Your task to perform on an android device: toggle improve location accuracy Image 0: 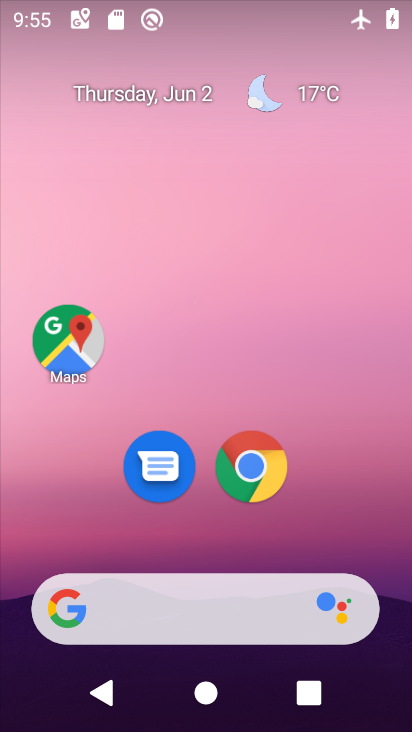
Step 0: click (241, 474)
Your task to perform on an android device: toggle improve location accuracy Image 1: 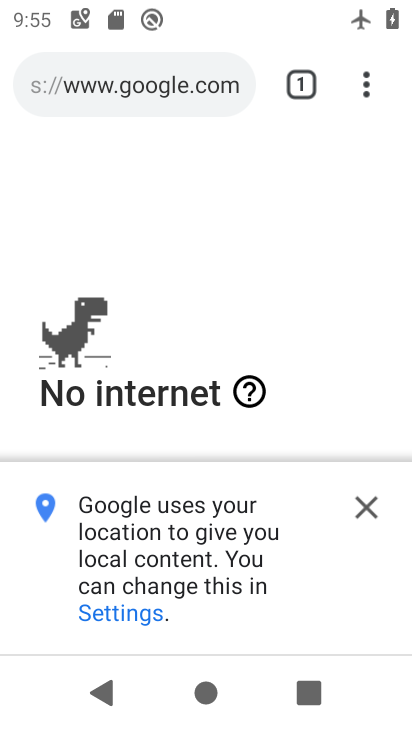
Step 1: click (374, 84)
Your task to perform on an android device: toggle improve location accuracy Image 2: 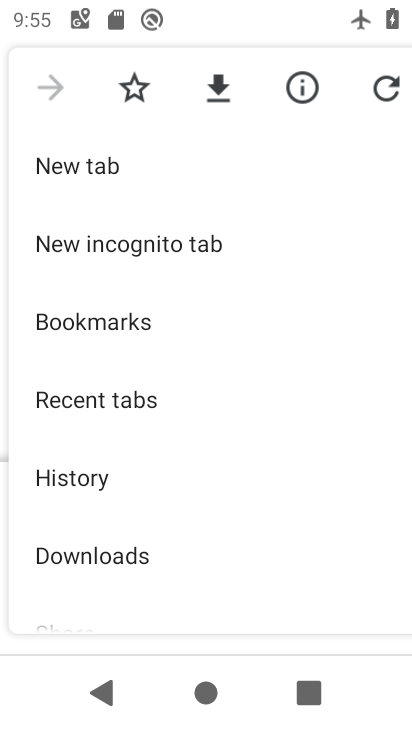
Step 2: drag from (139, 486) to (196, 226)
Your task to perform on an android device: toggle improve location accuracy Image 3: 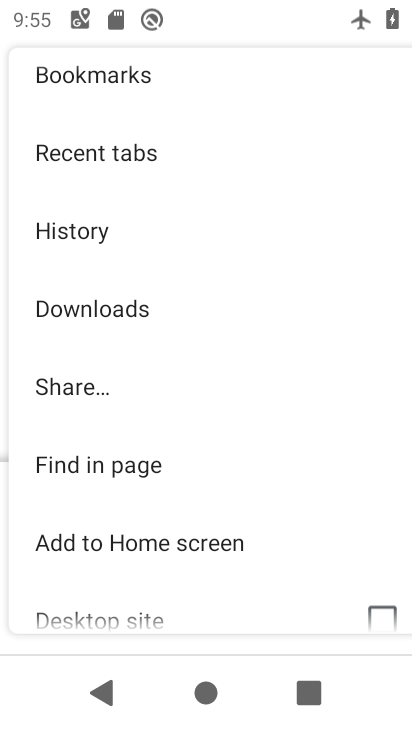
Step 3: click (204, 234)
Your task to perform on an android device: toggle improve location accuracy Image 4: 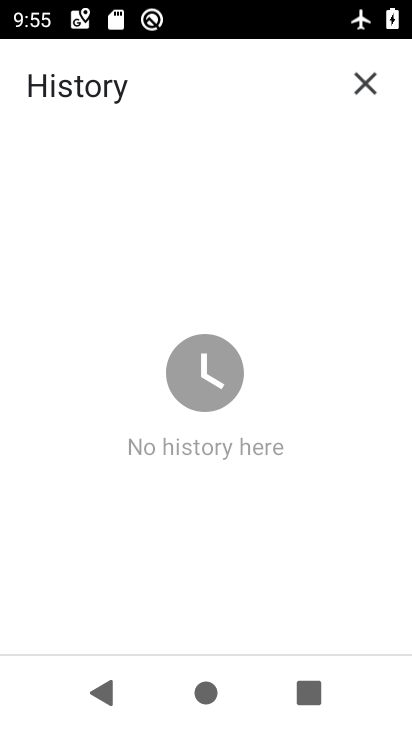
Step 4: press home button
Your task to perform on an android device: toggle improve location accuracy Image 5: 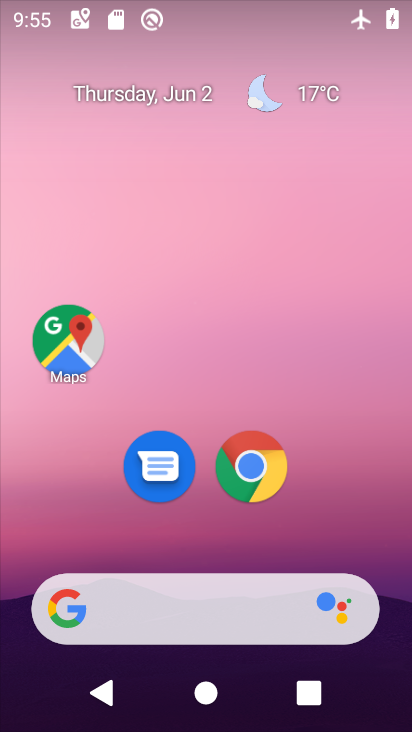
Step 5: drag from (322, 517) to (356, 170)
Your task to perform on an android device: toggle improve location accuracy Image 6: 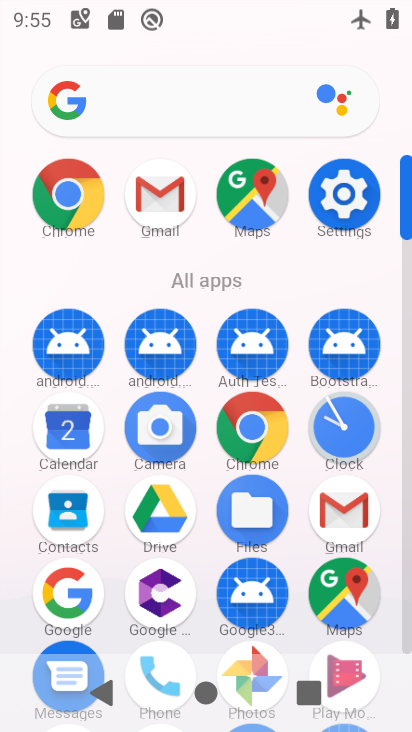
Step 6: click (330, 183)
Your task to perform on an android device: toggle improve location accuracy Image 7: 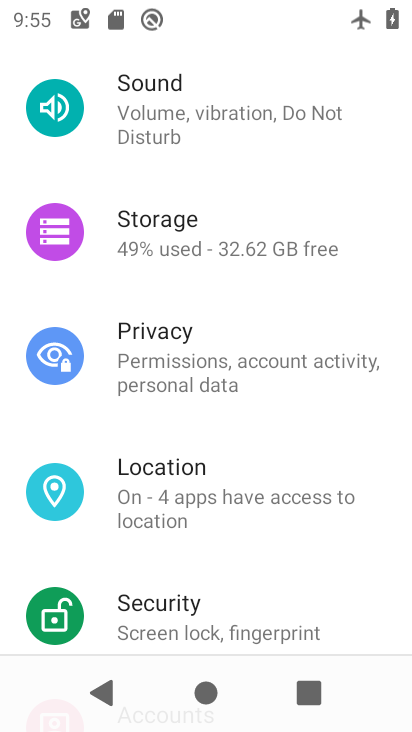
Step 7: drag from (237, 572) to (247, 253)
Your task to perform on an android device: toggle improve location accuracy Image 8: 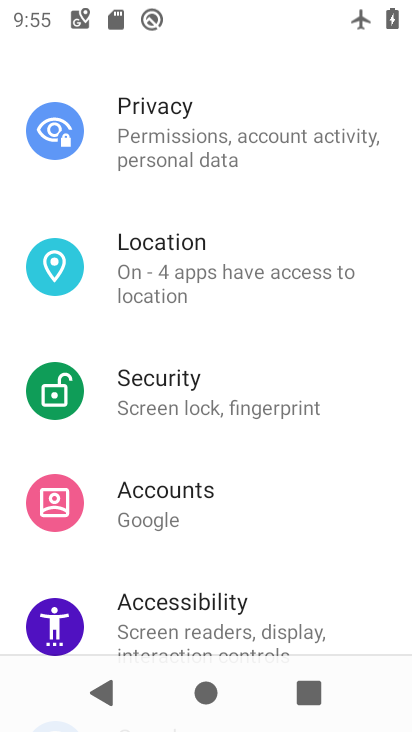
Step 8: click (206, 250)
Your task to perform on an android device: toggle improve location accuracy Image 9: 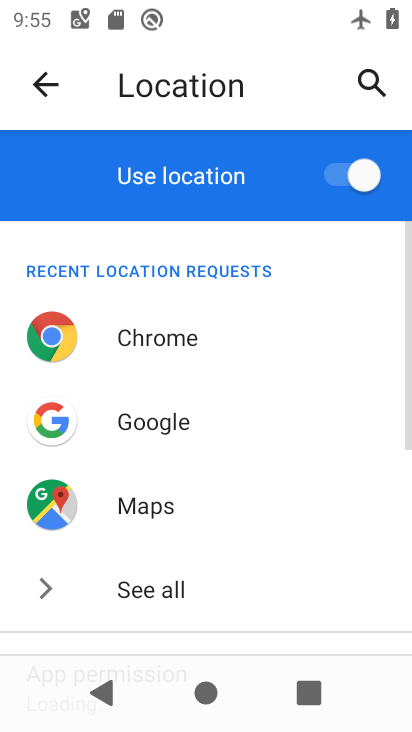
Step 9: drag from (180, 533) to (231, 235)
Your task to perform on an android device: toggle improve location accuracy Image 10: 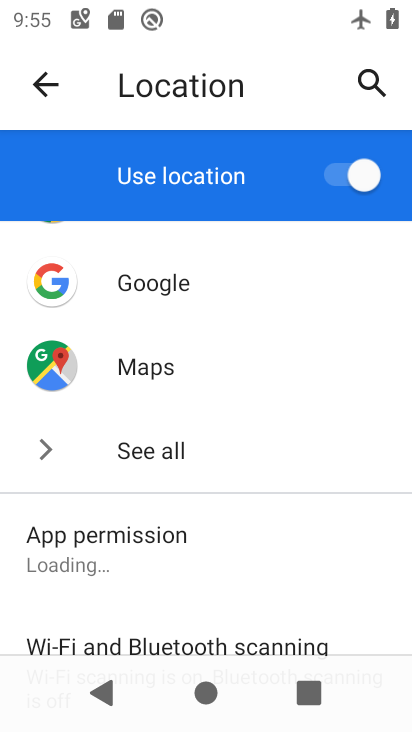
Step 10: drag from (156, 592) to (185, 291)
Your task to perform on an android device: toggle improve location accuracy Image 11: 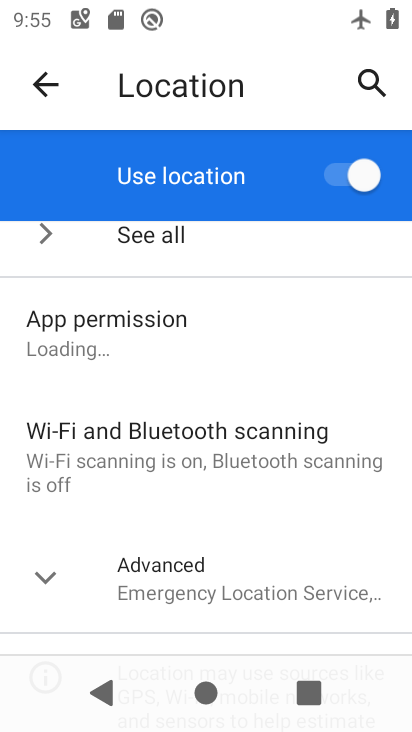
Step 11: click (170, 571)
Your task to perform on an android device: toggle improve location accuracy Image 12: 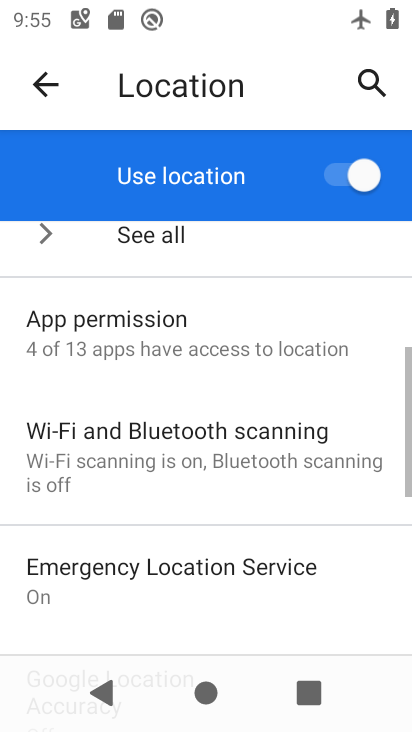
Step 12: drag from (243, 566) to (273, 282)
Your task to perform on an android device: toggle improve location accuracy Image 13: 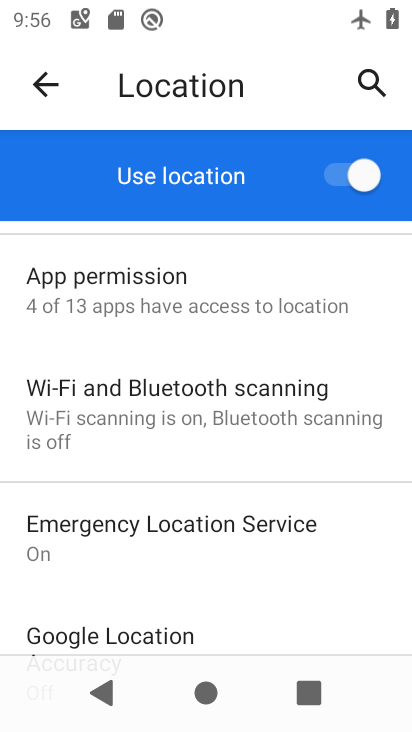
Step 13: drag from (267, 571) to (299, 251)
Your task to perform on an android device: toggle improve location accuracy Image 14: 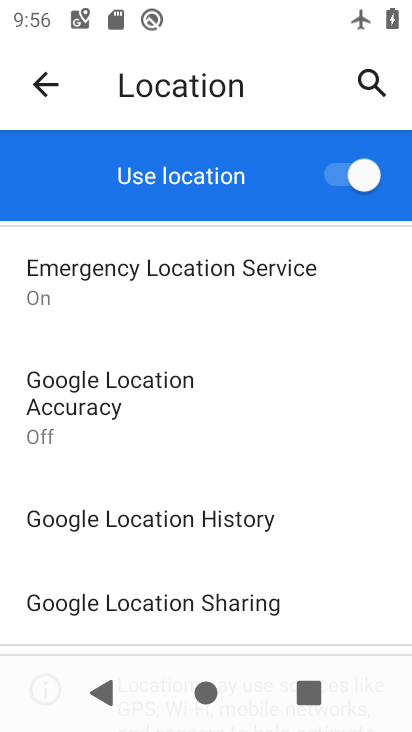
Step 14: click (184, 429)
Your task to perform on an android device: toggle improve location accuracy Image 15: 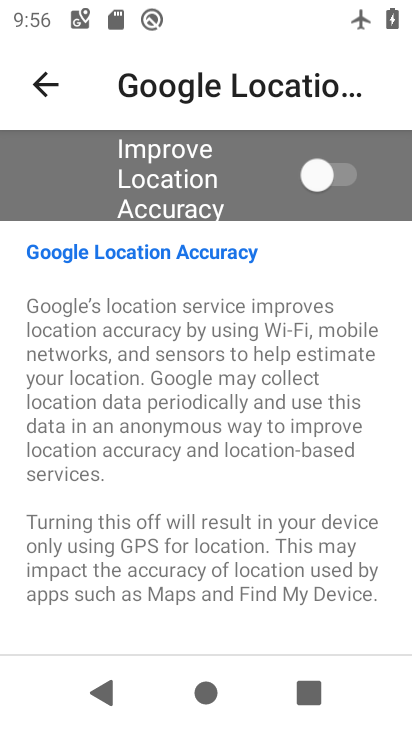
Step 15: click (320, 155)
Your task to perform on an android device: toggle improve location accuracy Image 16: 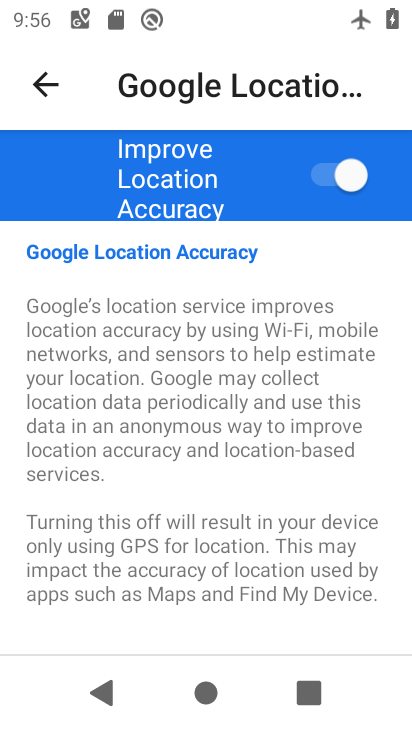
Step 16: task complete